Your task to perform on an android device: move an email to a new category in the gmail app Image 0: 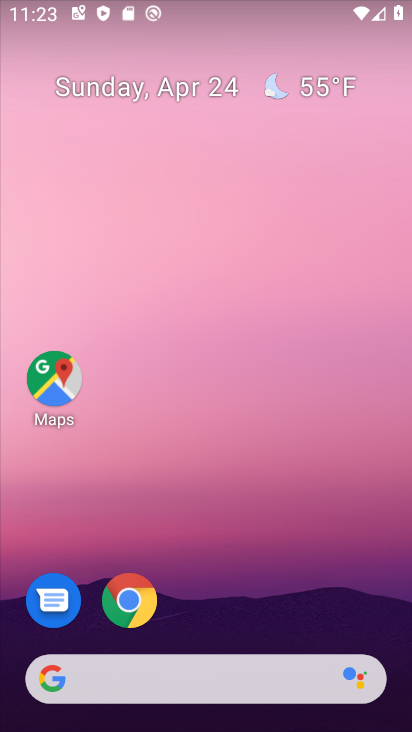
Step 0: drag from (206, 621) to (317, 30)
Your task to perform on an android device: move an email to a new category in the gmail app Image 1: 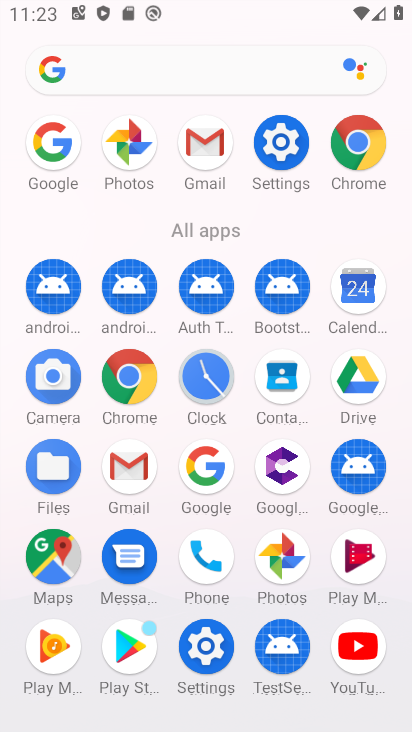
Step 1: click (137, 474)
Your task to perform on an android device: move an email to a new category in the gmail app Image 2: 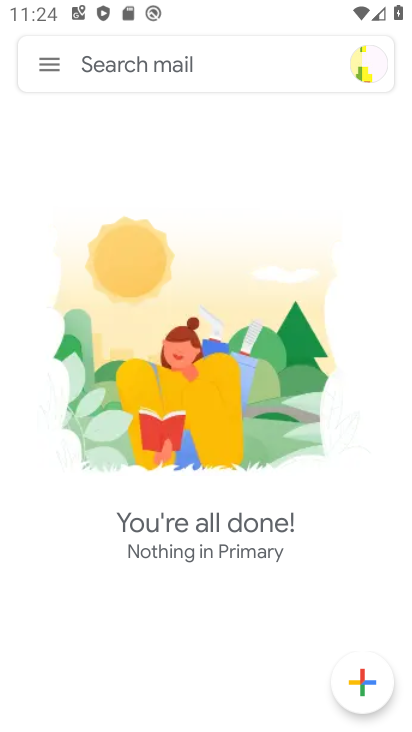
Step 2: task complete